Your task to perform on an android device: Search for Mexican restaurants on Maps Image 0: 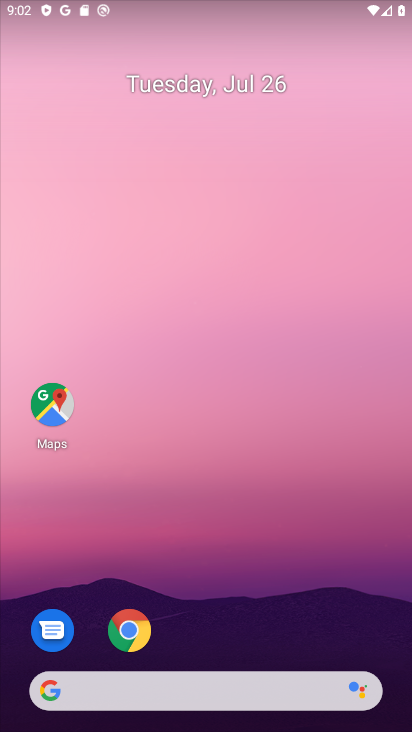
Step 0: click (39, 399)
Your task to perform on an android device: Search for Mexican restaurants on Maps Image 1: 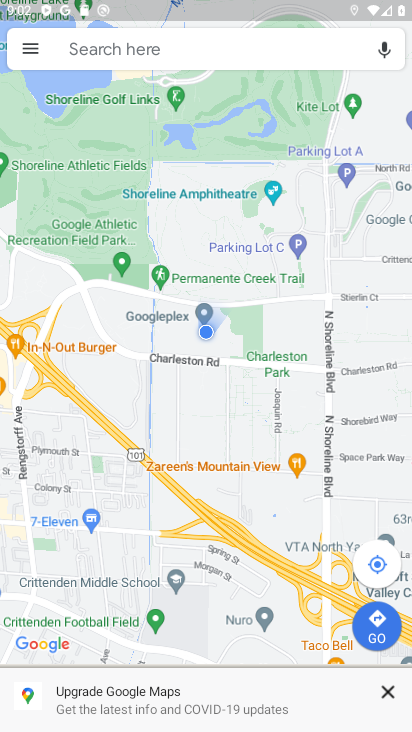
Step 1: click (120, 45)
Your task to perform on an android device: Search for Mexican restaurants on Maps Image 2: 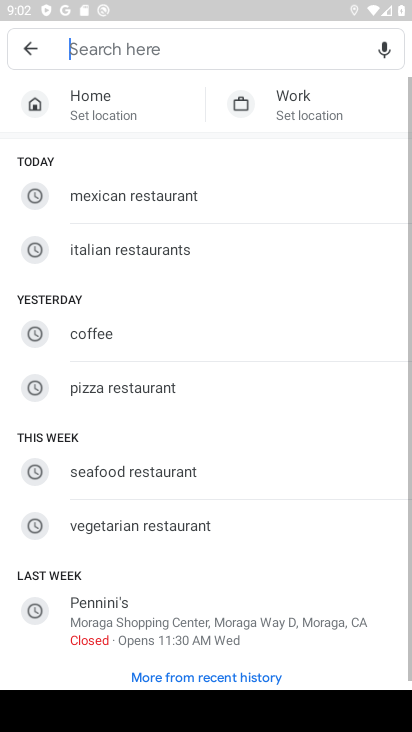
Step 2: click (141, 206)
Your task to perform on an android device: Search for Mexican restaurants on Maps Image 3: 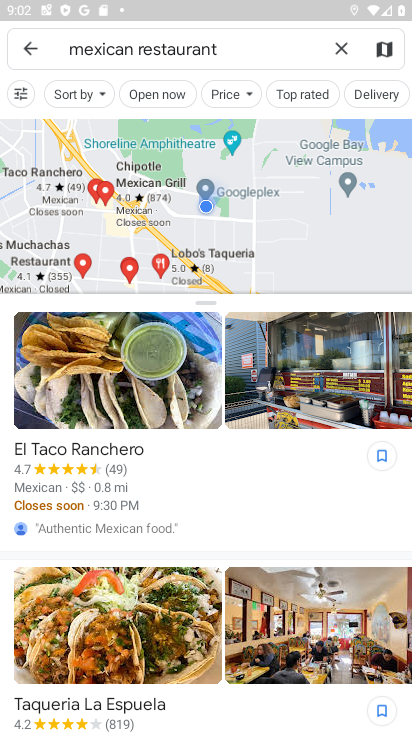
Step 3: task complete